Your task to perform on an android device: see sites visited before in the chrome app Image 0: 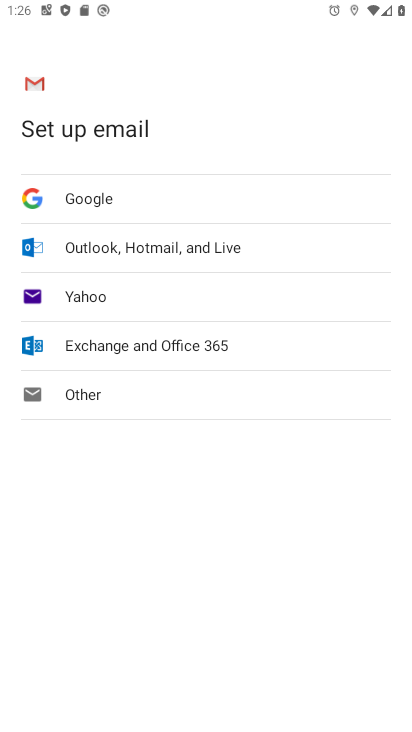
Step 0: press home button
Your task to perform on an android device: see sites visited before in the chrome app Image 1: 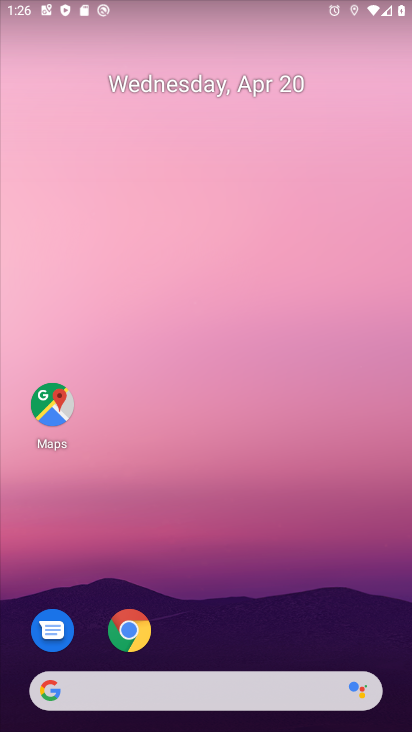
Step 1: click (140, 629)
Your task to perform on an android device: see sites visited before in the chrome app Image 2: 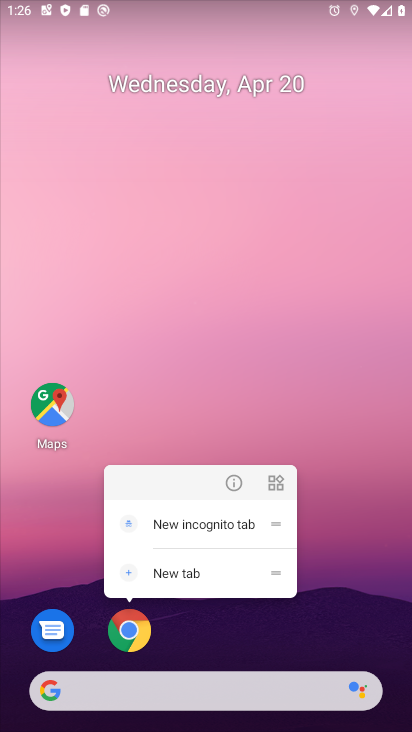
Step 2: click (139, 626)
Your task to perform on an android device: see sites visited before in the chrome app Image 3: 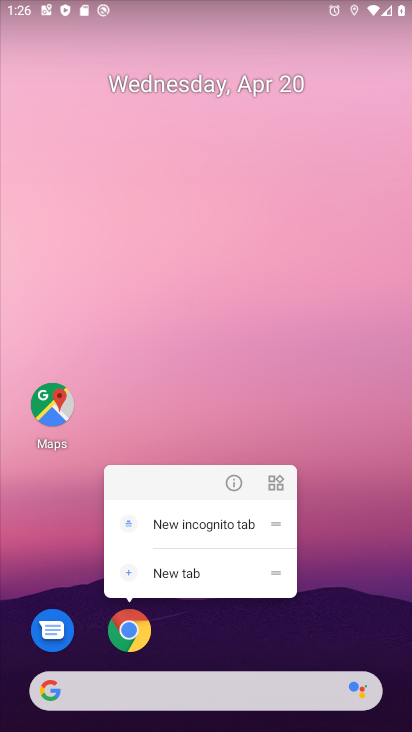
Step 3: click (115, 652)
Your task to perform on an android device: see sites visited before in the chrome app Image 4: 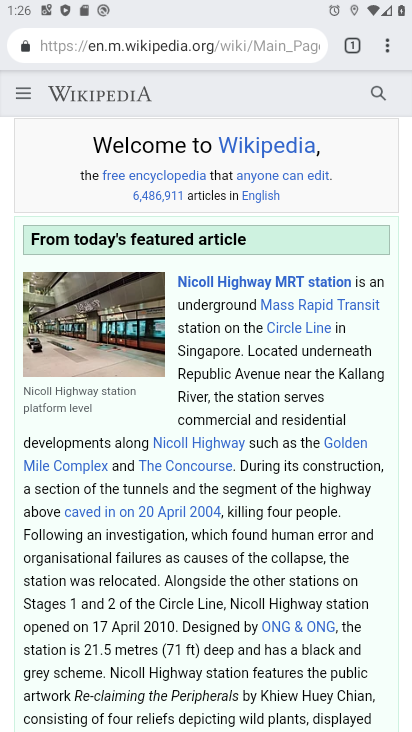
Step 4: click (387, 40)
Your task to perform on an android device: see sites visited before in the chrome app Image 5: 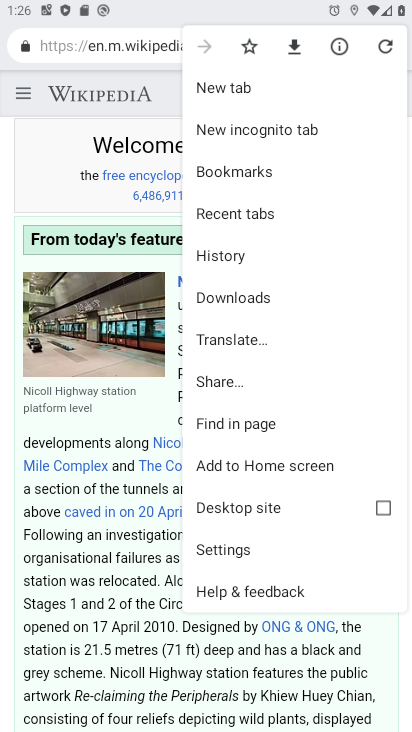
Step 5: click (238, 210)
Your task to perform on an android device: see sites visited before in the chrome app Image 6: 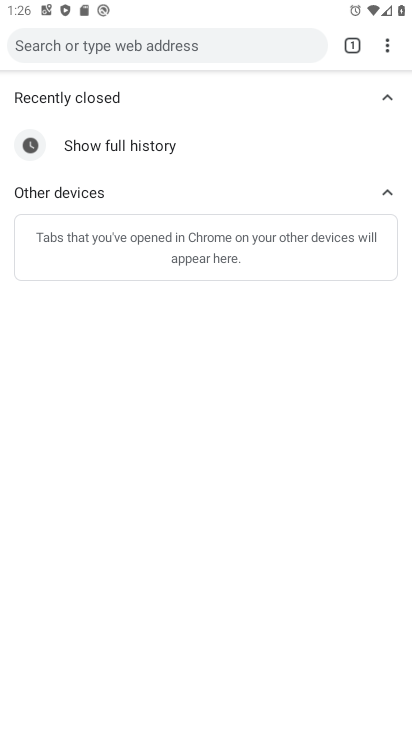
Step 6: click (124, 147)
Your task to perform on an android device: see sites visited before in the chrome app Image 7: 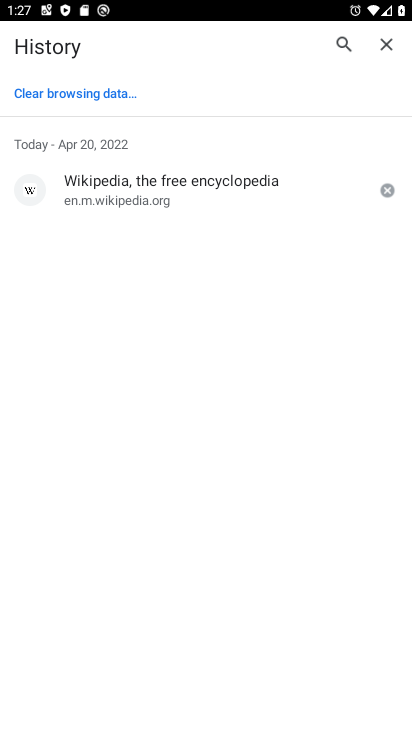
Step 7: task complete